Your task to perform on an android device: Show me the alarms in the clock app Image 0: 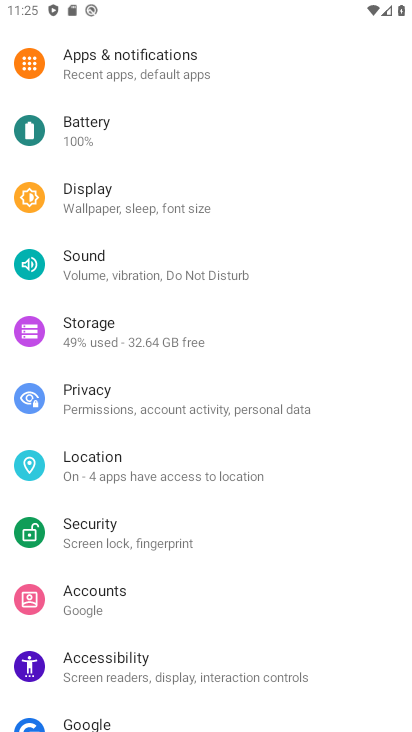
Step 0: press home button
Your task to perform on an android device: Show me the alarms in the clock app Image 1: 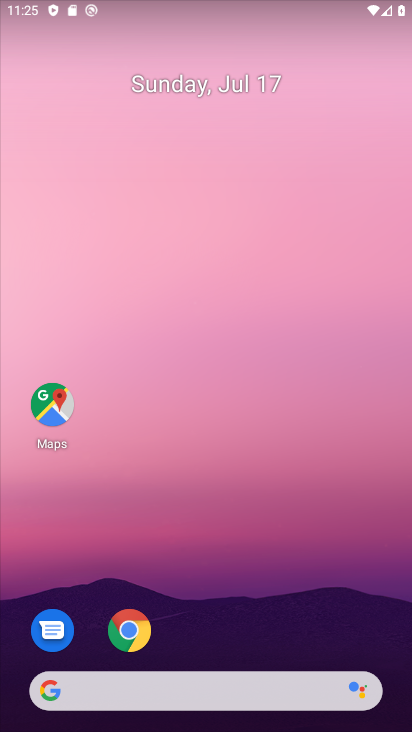
Step 1: drag from (309, 598) to (289, 4)
Your task to perform on an android device: Show me the alarms in the clock app Image 2: 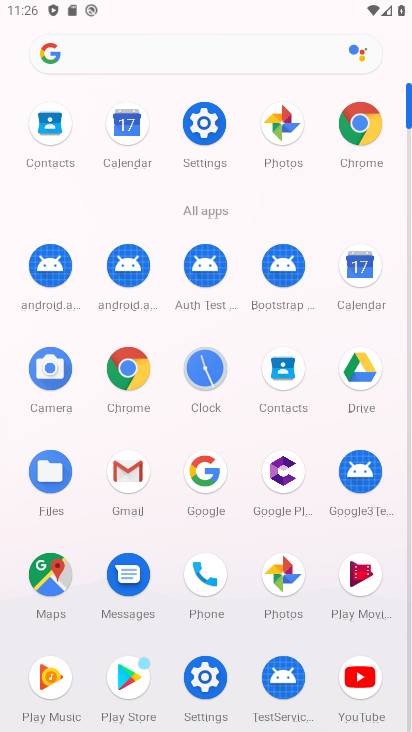
Step 2: click (206, 374)
Your task to perform on an android device: Show me the alarms in the clock app Image 3: 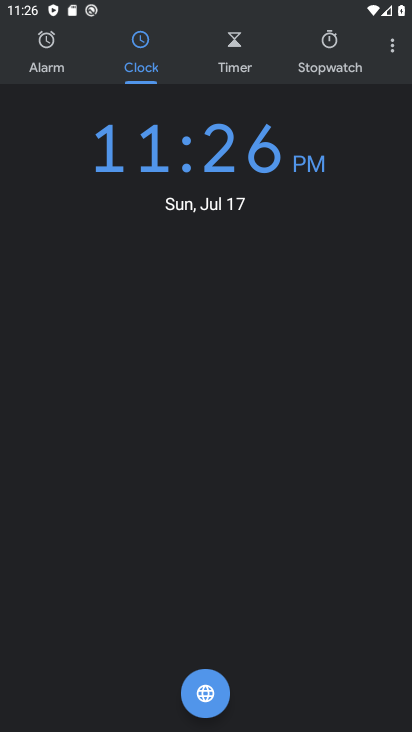
Step 3: click (55, 52)
Your task to perform on an android device: Show me the alarms in the clock app Image 4: 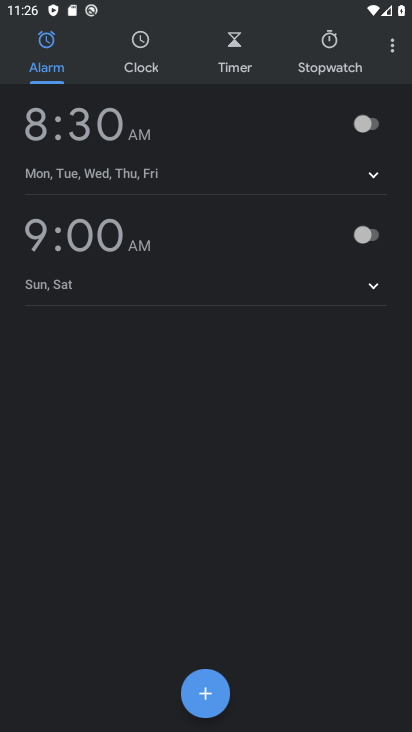
Step 4: task complete